Your task to perform on an android device: Open privacy settings Image 0: 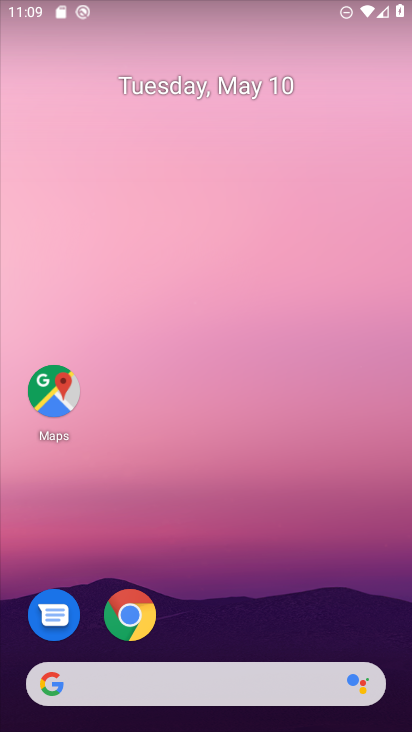
Step 0: drag from (173, 634) to (285, 170)
Your task to perform on an android device: Open privacy settings Image 1: 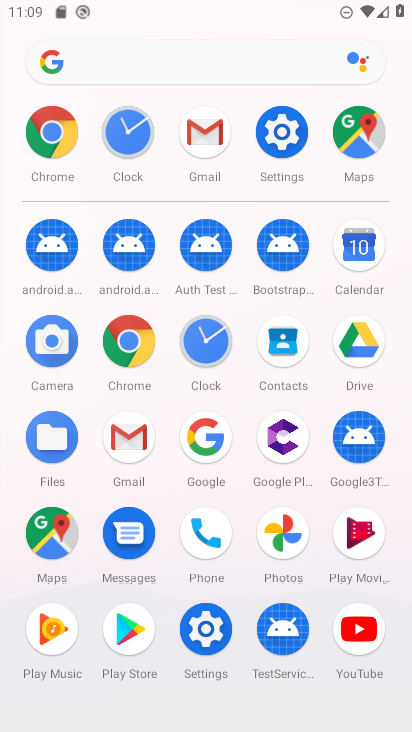
Step 1: click (281, 134)
Your task to perform on an android device: Open privacy settings Image 2: 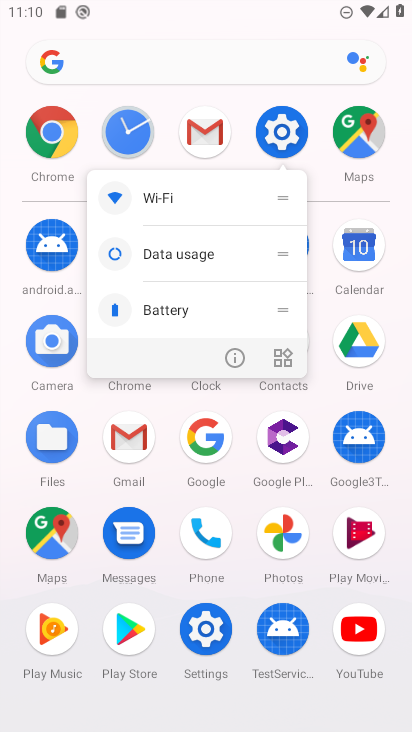
Step 2: click (231, 346)
Your task to perform on an android device: Open privacy settings Image 3: 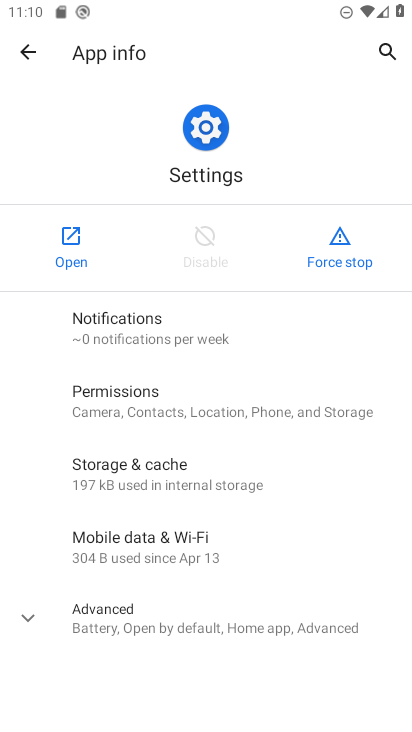
Step 3: click (66, 244)
Your task to perform on an android device: Open privacy settings Image 4: 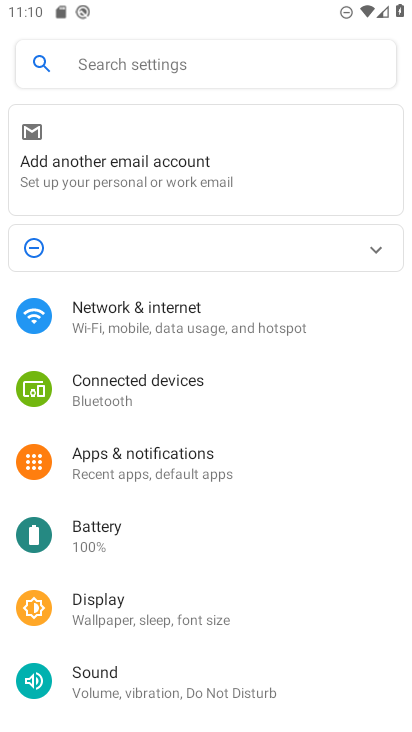
Step 4: drag from (153, 615) to (272, 34)
Your task to perform on an android device: Open privacy settings Image 5: 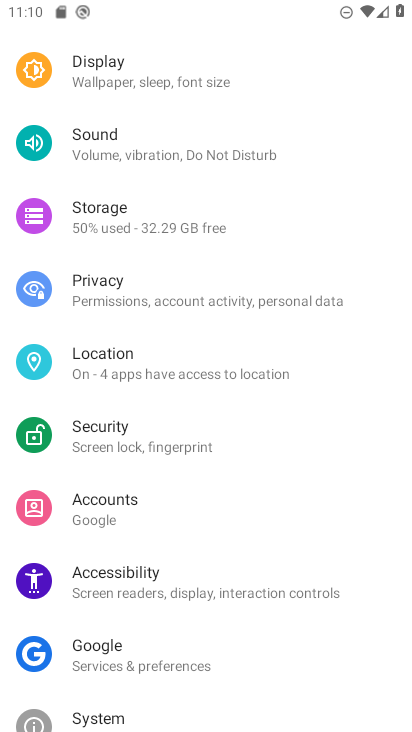
Step 5: click (128, 300)
Your task to perform on an android device: Open privacy settings Image 6: 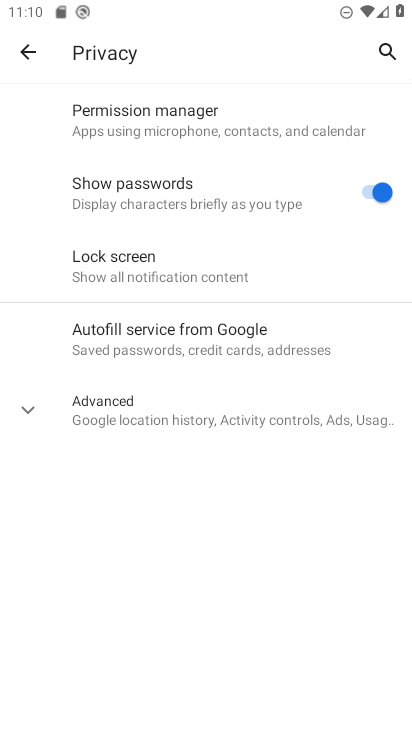
Step 6: task complete